Your task to perform on an android device: toggle pop-ups in chrome Image 0: 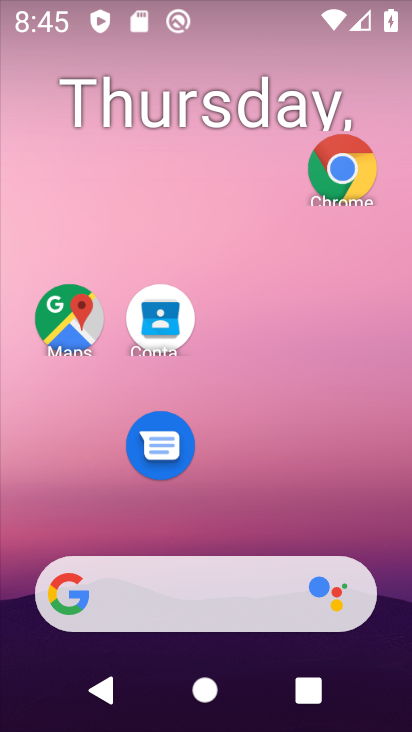
Step 0: drag from (236, 639) to (384, 177)
Your task to perform on an android device: toggle pop-ups in chrome Image 1: 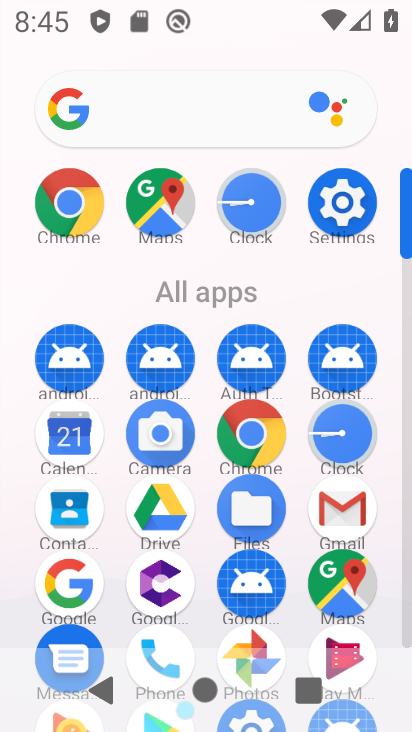
Step 1: click (78, 197)
Your task to perform on an android device: toggle pop-ups in chrome Image 2: 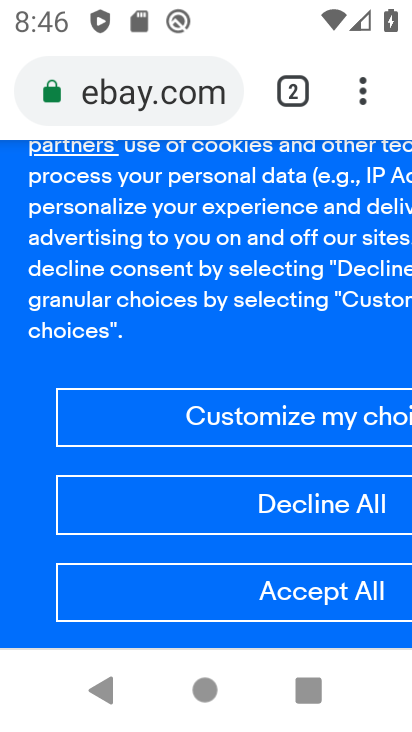
Step 2: click (353, 89)
Your task to perform on an android device: toggle pop-ups in chrome Image 3: 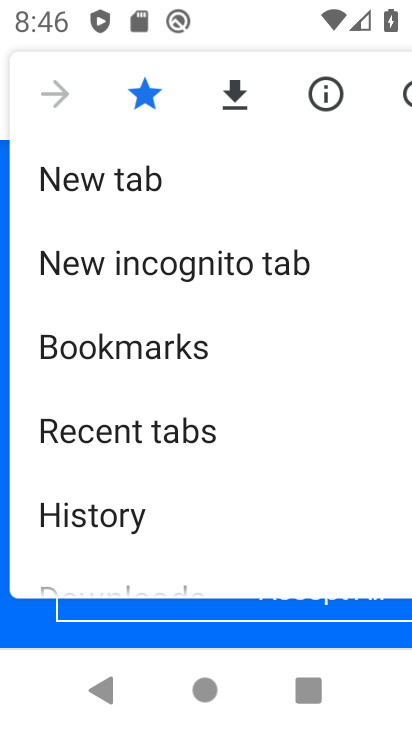
Step 3: drag from (221, 463) to (292, 167)
Your task to perform on an android device: toggle pop-ups in chrome Image 4: 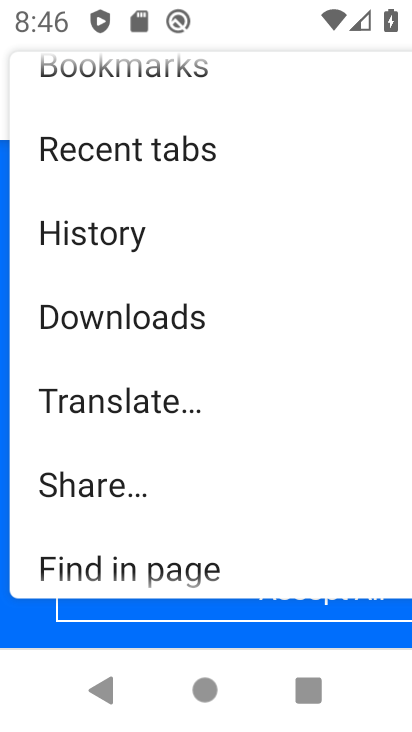
Step 4: drag from (187, 505) to (193, 282)
Your task to perform on an android device: toggle pop-ups in chrome Image 5: 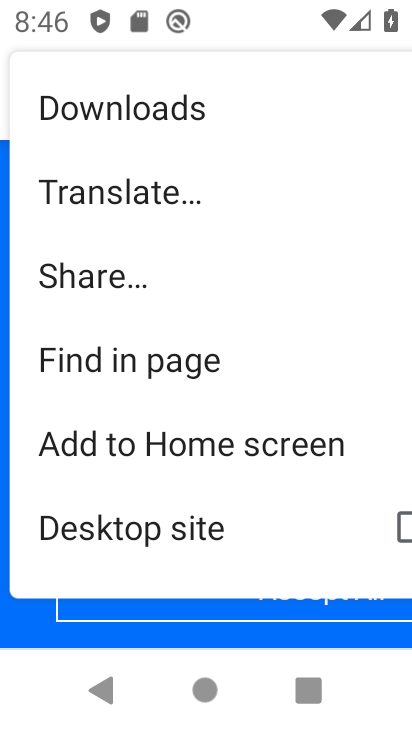
Step 5: drag from (129, 493) to (143, 269)
Your task to perform on an android device: toggle pop-ups in chrome Image 6: 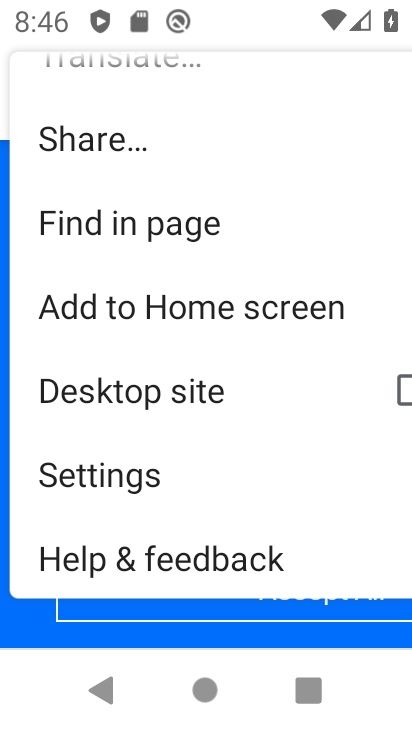
Step 6: click (108, 475)
Your task to perform on an android device: toggle pop-ups in chrome Image 7: 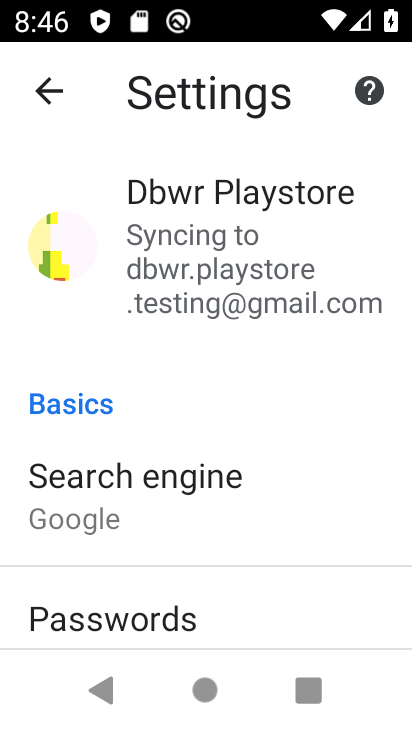
Step 7: drag from (244, 368) to (241, 184)
Your task to perform on an android device: toggle pop-ups in chrome Image 8: 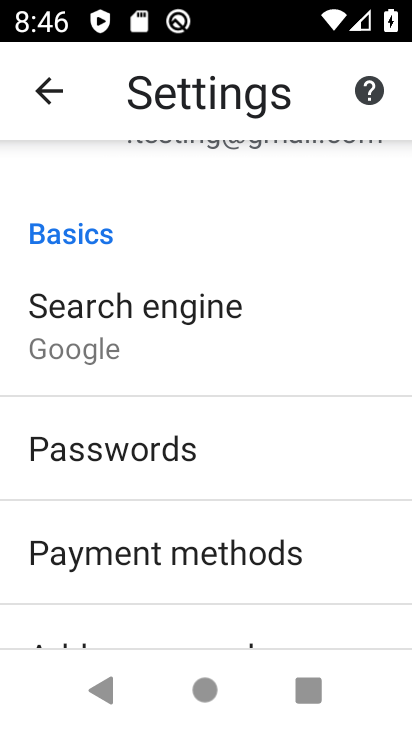
Step 8: drag from (147, 555) to (239, 166)
Your task to perform on an android device: toggle pop-ups in chrome Image 9: 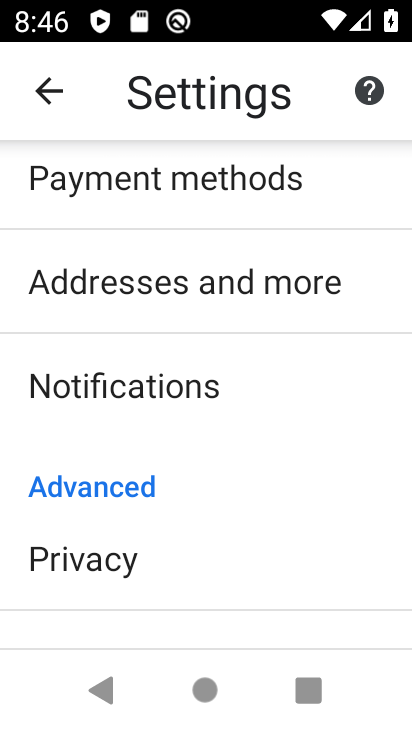
Step 9: drag from (177, 469) to (248, 246)
Your task to perform on an android device: toggle pop-ups in chrome Image 10: 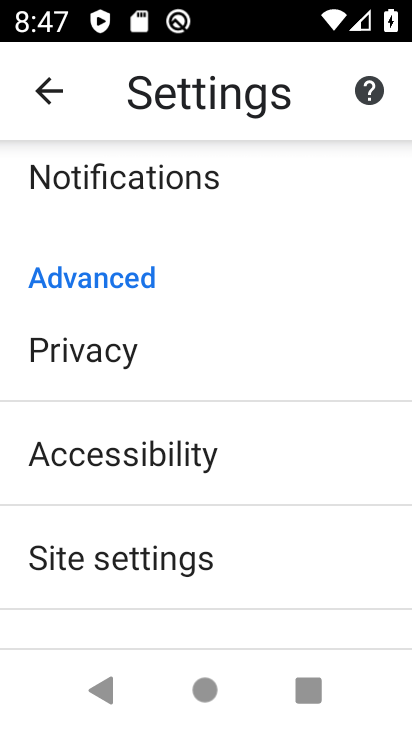
Step 10: click (112, 560)
Your task to perform on an android device: toggle pop-ups in chrome Image 11: 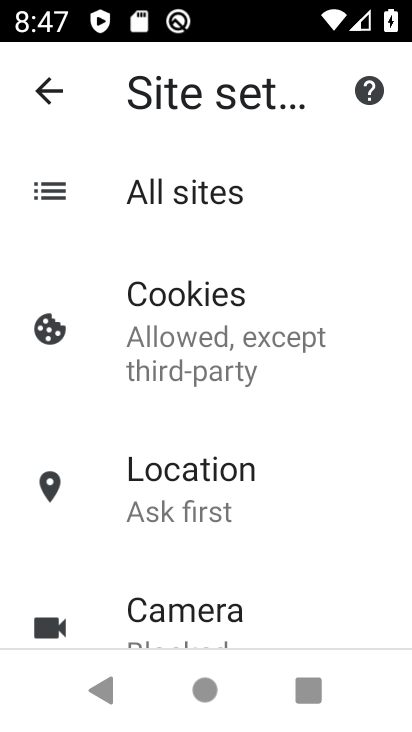
Step 11: drag from (169, 559) to (251, 376)
Your task to perform on an android device: toggle pop-ups in chrome Image 12: 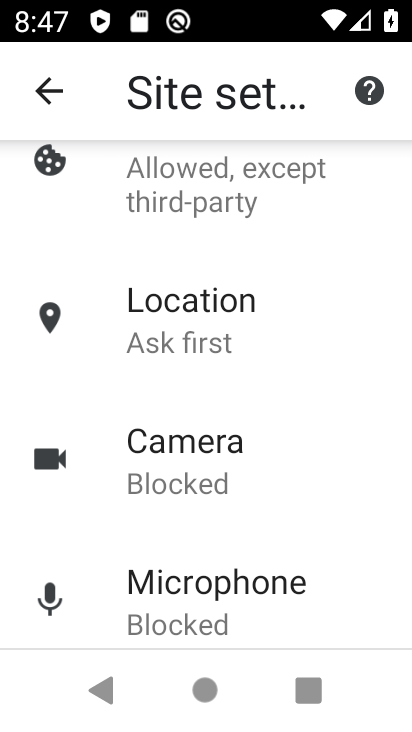
Step 12: drag from (186, 489) to (209, 312)
Your task to perform on an android device: toggle pop-ups in chrome Image 13: 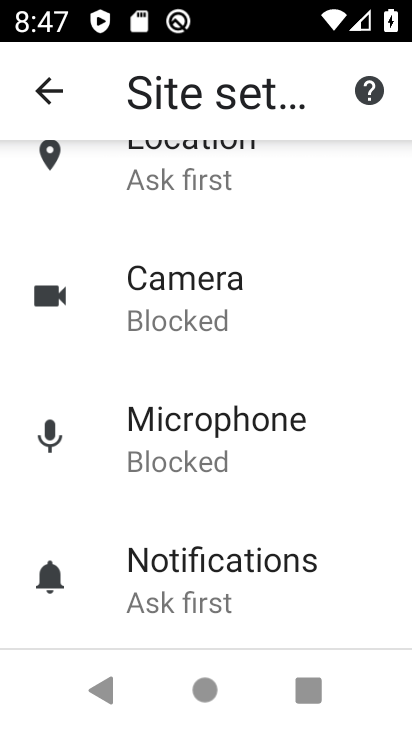
Step 13: drag from (223, 519) to (293, 333)
Your task to perform on an android device: toggle pop-ups in chrome Image 14: 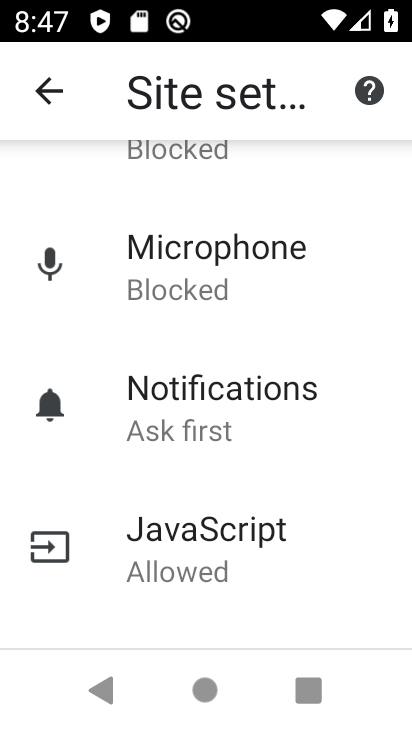
Step 14: drag from (209, 502) to (257, 318)
Your task to perform on an android device: toggle pop-ups in chrome Image 15: 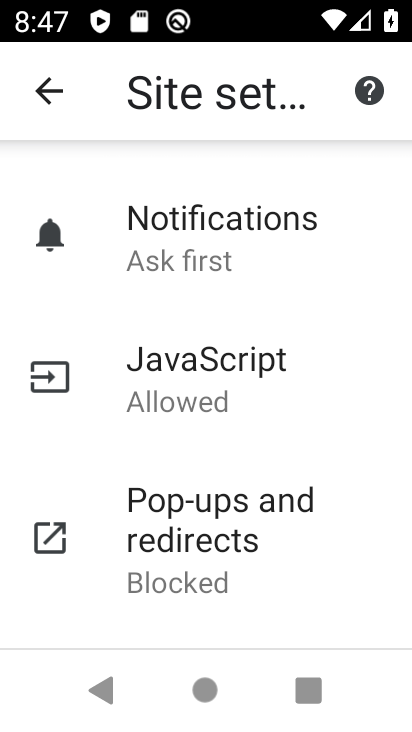
Step 15: click (183, 526)
Your task to perform on an android device: toggle pop-ups in chrome Image 16: 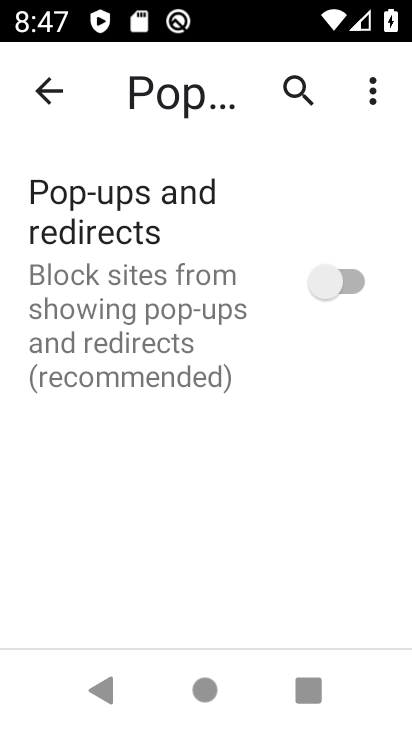
Step 16: click (342, 285)
Your task to perform on an android device: toggle pop-ups in chrome Image 17: 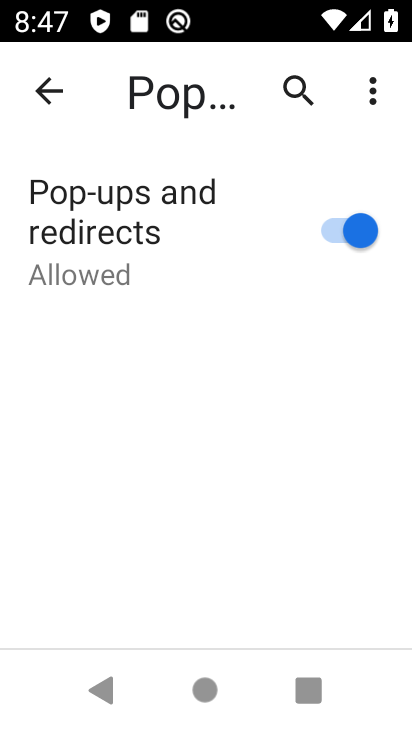
Step 17: task complete